Your task to perform on an android device: set default search engine in the chrome app Image 0: 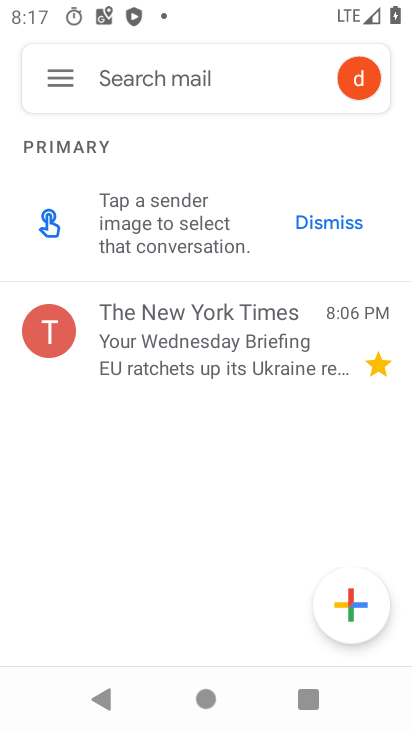
Step 0: press home button
Your task to perform on an android device: set default search engine in the chrome app Image 1: 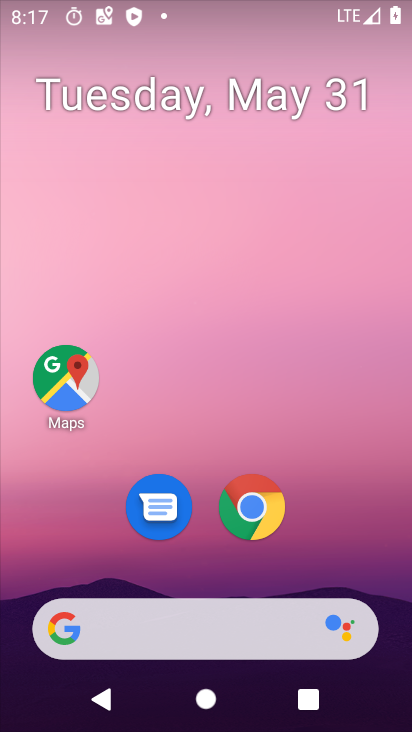
Step 1: click (244, 514)
Your task to perform on an android device: set default search engine in the chrome app Image 2: 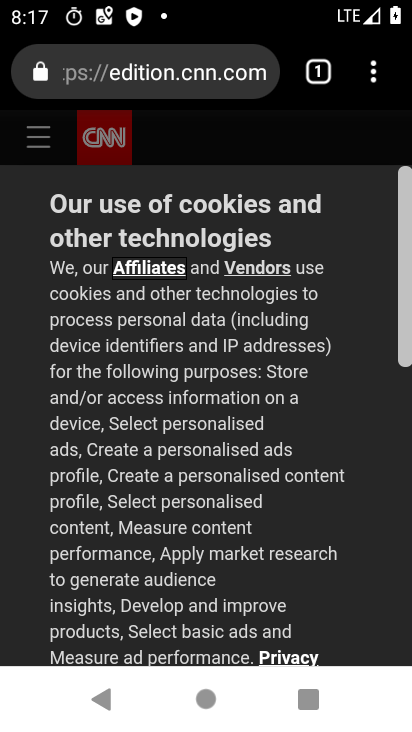
Step 2: click (356, 79)
Your task to perform on an android device: set default search engine in the chrome app Image 3: 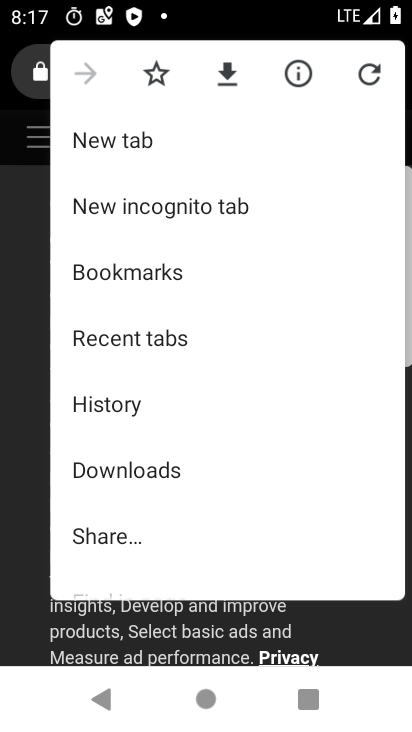
Step 3: drag from (59, 569) to (236, 151)
Your task to perform on an android device: set default search engine in the chrome app Image 4: 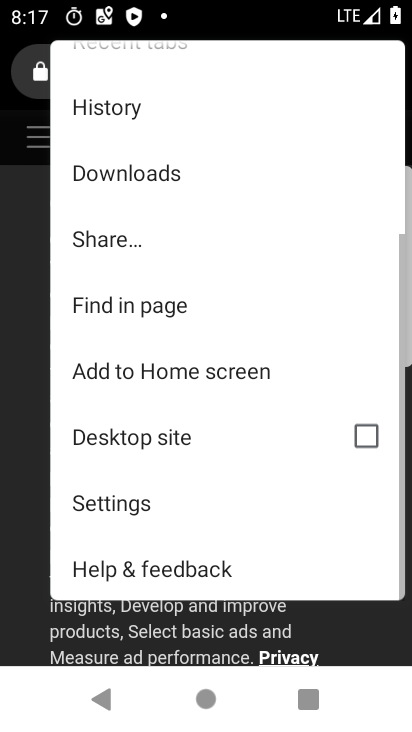
Step 4: click (122, 500)
Your task to perform on an android device: set default search engine in the chrome app Image 5: 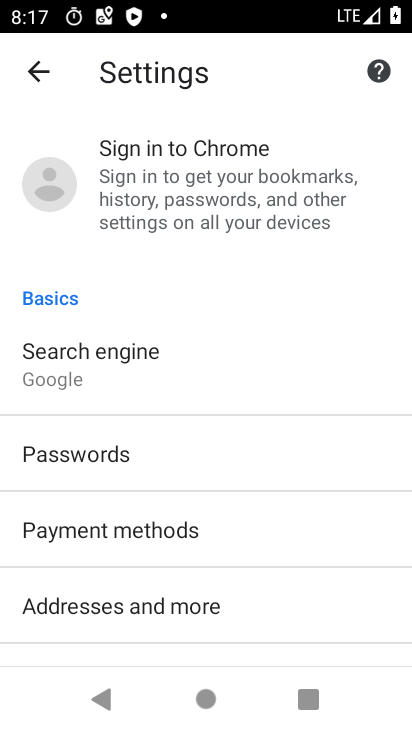
Step 5: click (126, 389)
Your task to perform on an android device: set default search engine in the chrome app Image 6: 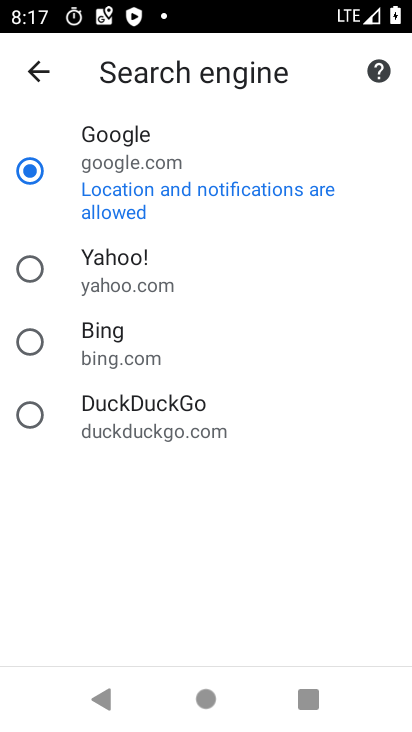
Step 6: task complete